Your task to perform on an android device: check out phone information Image 0: 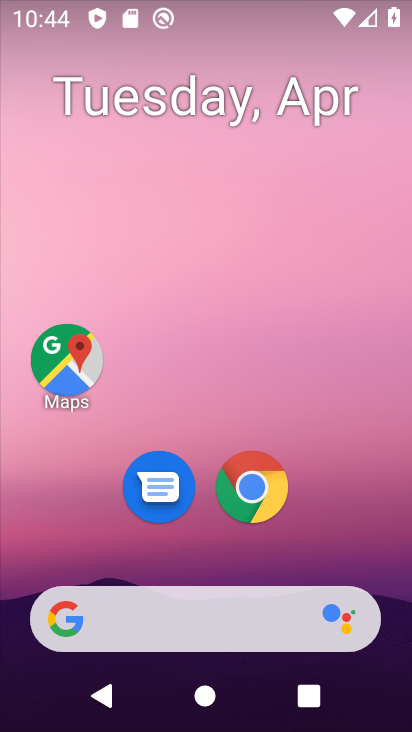
Step 0: drag from (231, 210) to (142, 10)
Your task to perform on an android device: check out phone information Image 1: 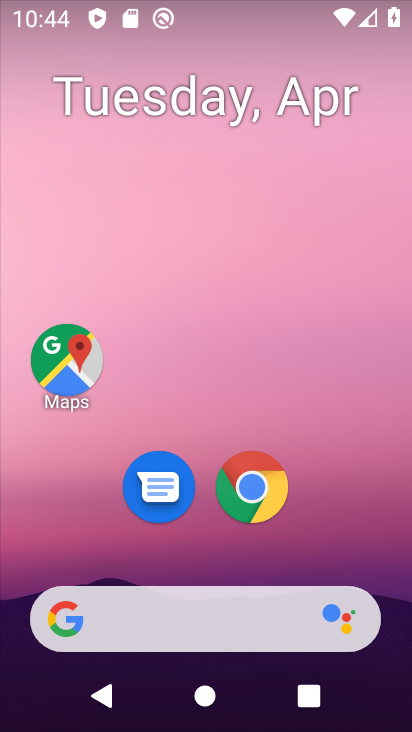
Step 1: drag from (216, 591) to (202, 72)
Your task to perform on an android device: check out phone information Image 2: 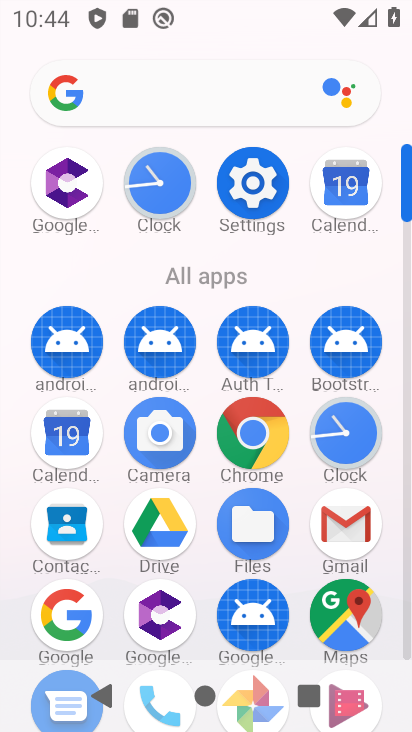
Step 2: click (261, 193)
Your task to perform on an android device: check out phone information Image 3: 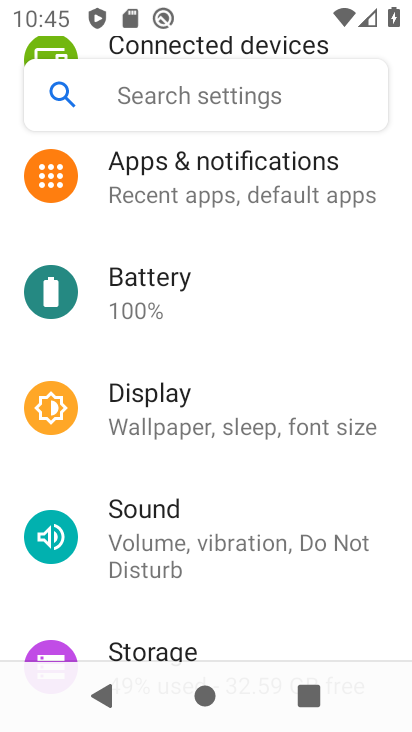
Step 3: drag from (215, 579) to (194, 69)
Your task to perform on an android device: check out phone information Image 4: 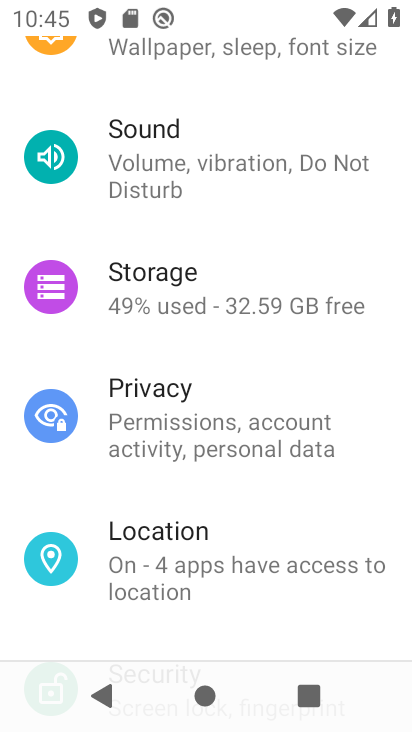
Step 4: drag from (212, 496) to (182, 242)
Your task to perform on an android device: check out phone information Image 5: 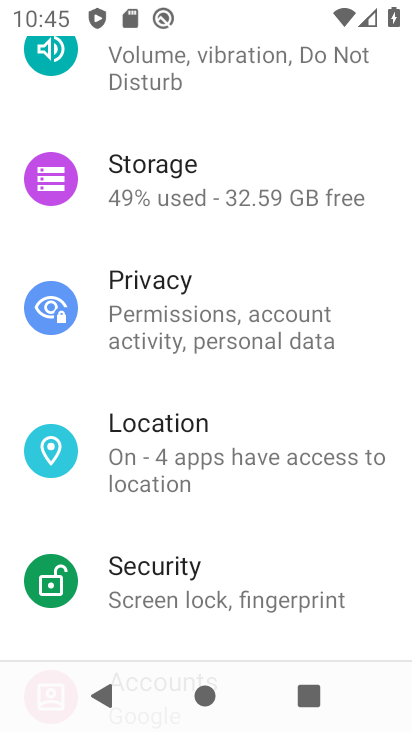
Step 5: drag from (211, 530) to (173, 21)
Your task to perform on an android device: check out phone information Image 6: 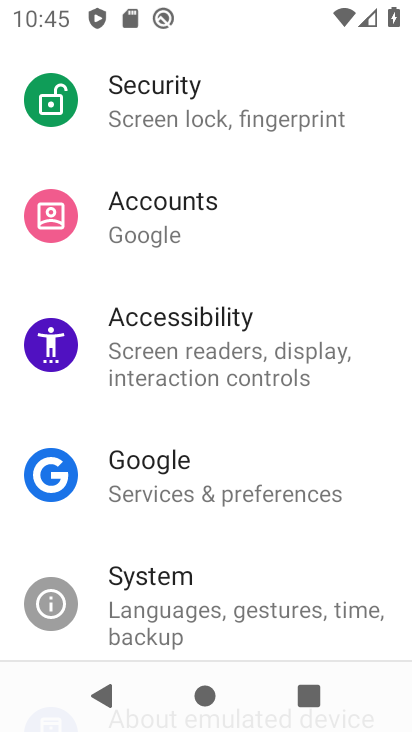
Step 6: drag from (197, 558) to (161, 153)
Your task to perform on an android device: check out phone information Image 7: 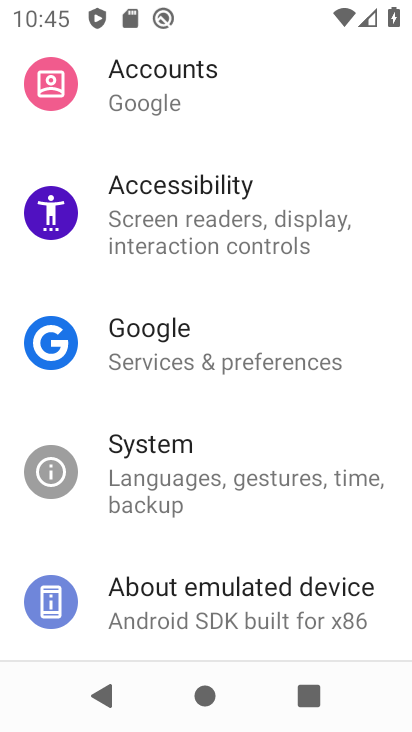
Step 7: click (199, 592)
Your task to perform on an android device: check out phone information Image 8: 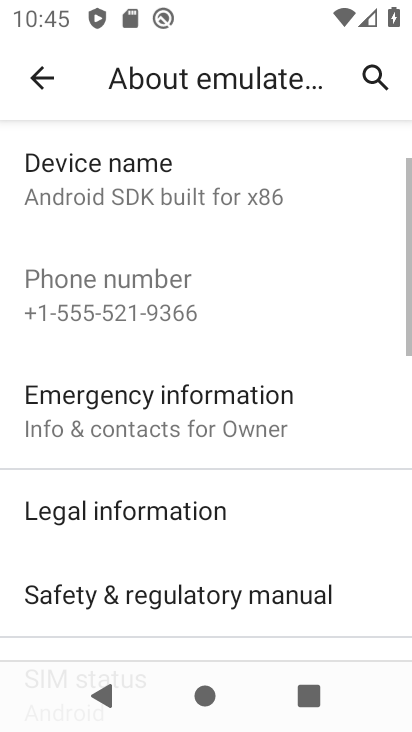
Step 8: task complete